Your task to perform on an android device: open sync settings in chrome Image 0: 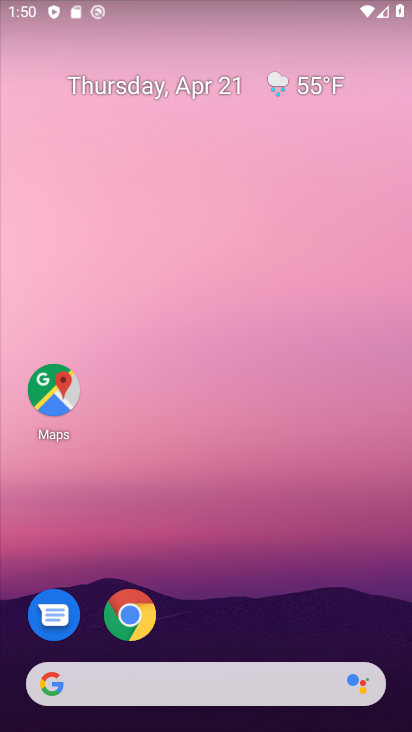
Step 0: click (135, 622)
Your task to perform on an android device: open sync settings in chrome Image 1: 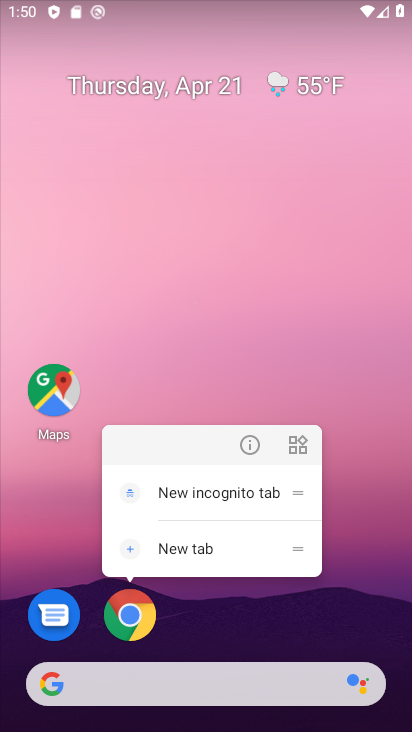
Step 1: click (135, 620)
Your task to perform on an android device: open sync settings in chrome Image 2: 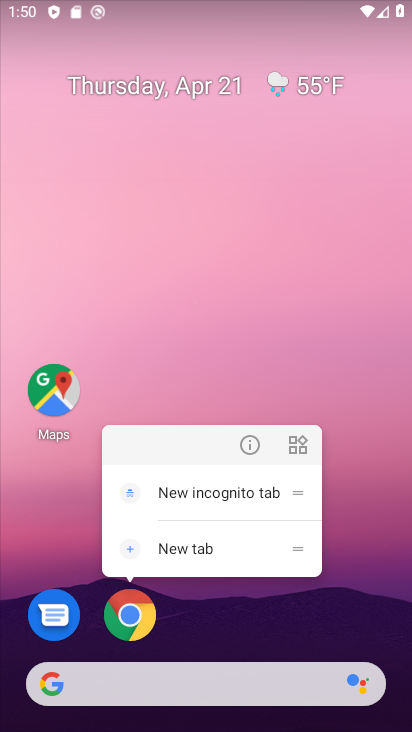
Step 2: click (134, 619)
Your task to perform on an android device: open sync settings in chrome Image 3: 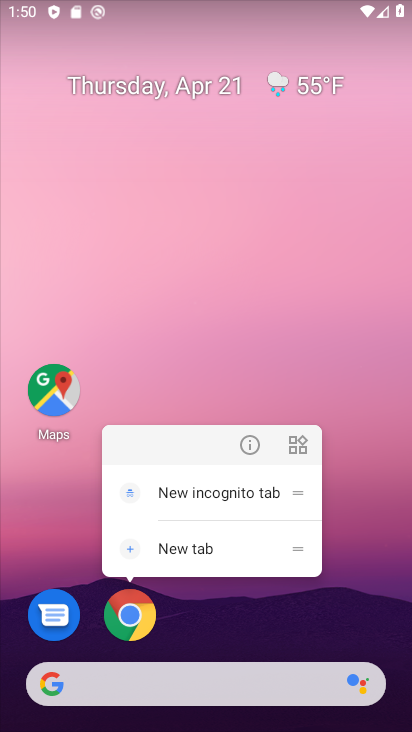
Step 3: click (134, 619)
Your task to perform on an android device: open sync settings in chrome Image 4: 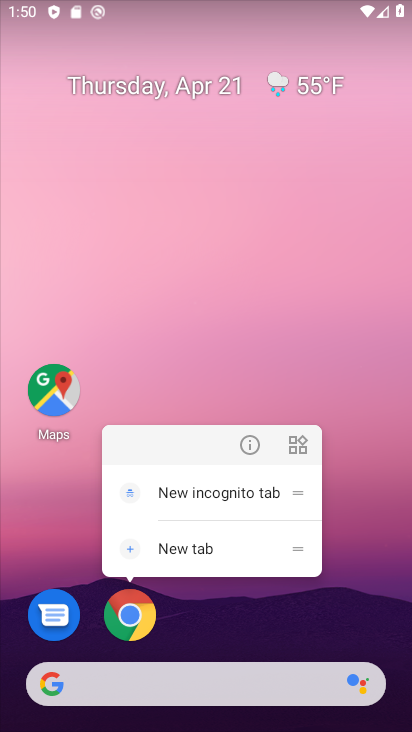
Step 4: click (127, 610)
Your task to perform on an android device: open sync settings in chrome Image 5: 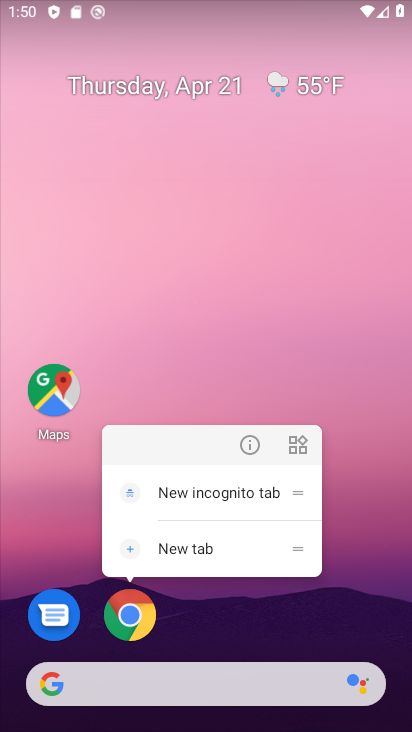
Step 5: click (119, 621)
Your task to perform on an android device: open sync settings in chrome Image 6: 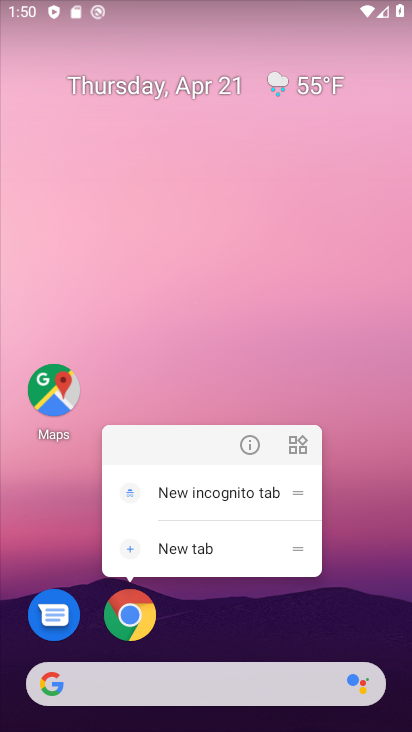
Step 6: click (129, 620)
Your task to perform on an android device: open sync settings in chrome Image 7: 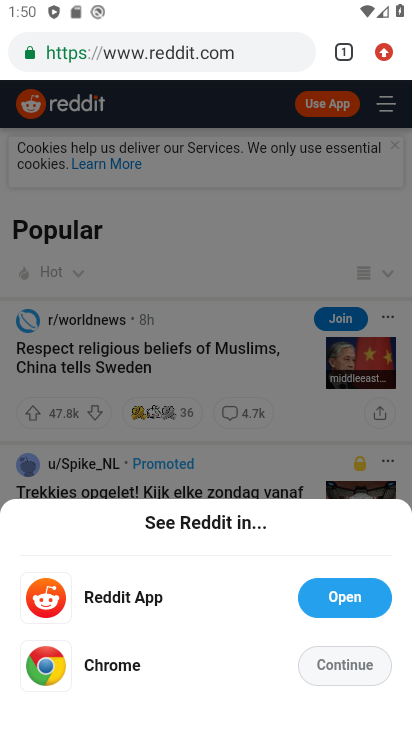
Step 7: click (338, 144)
Your task to perform on an android device: open sync settings in chrome Image 8: 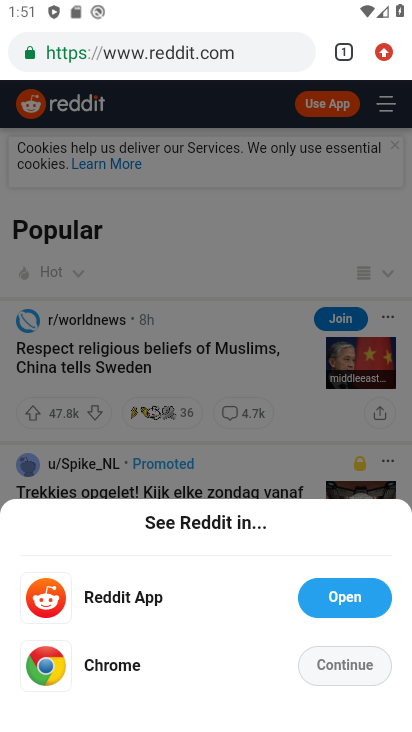
Step 8: click (345, 50)
Your task to perform on an android device: open sync settings in chrome Image 9: 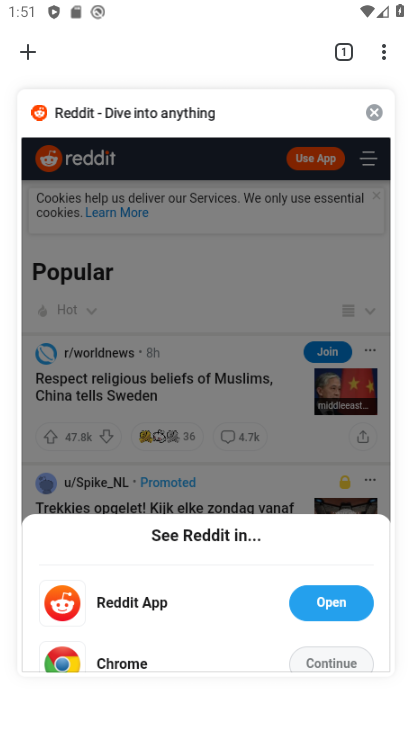
Step 9: click (372, 111)
Your task to perform on an android device: open sync settings in chrome Image 10: 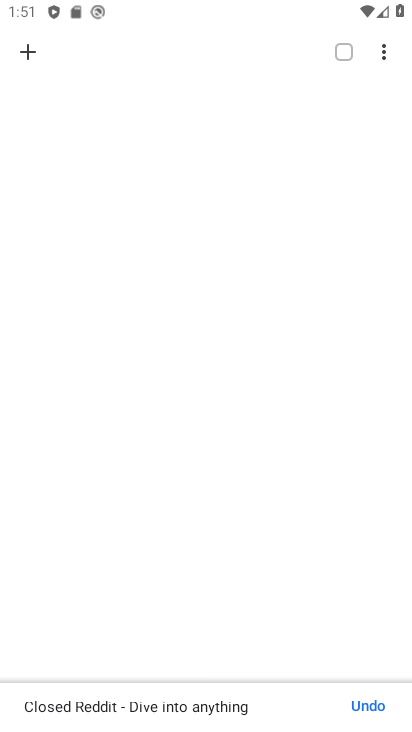
Step 10: click (385, 55)
Your task to perform on an android device: open sync settings in chrome Image 11: 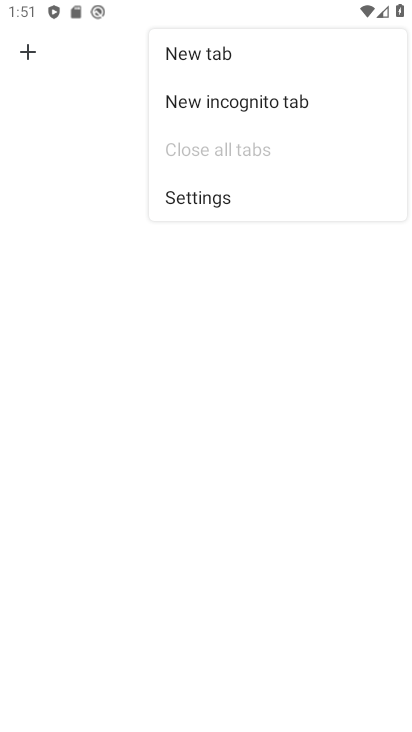
Step 11: click (222, 199)
Your task to perform on an android device: open sync settings in chrome Image 12: 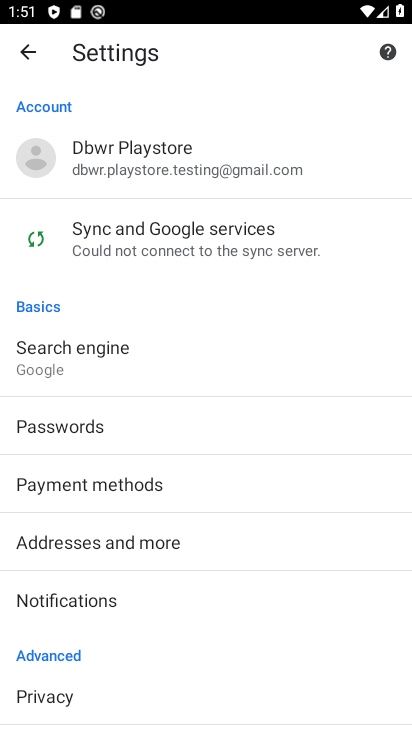
Step 12: click (191, 254)
Your task to perform on an android device: open sync settings in chrome Image 13: 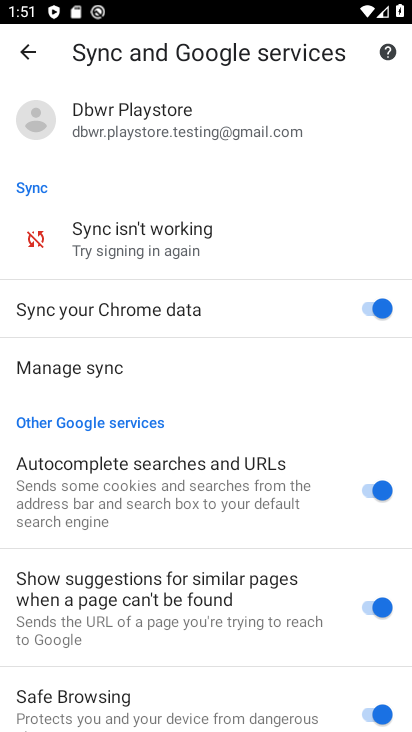
Step 13: click (136, 238)
Your task to perform on an android device: open sync settings in chrome Image 14: 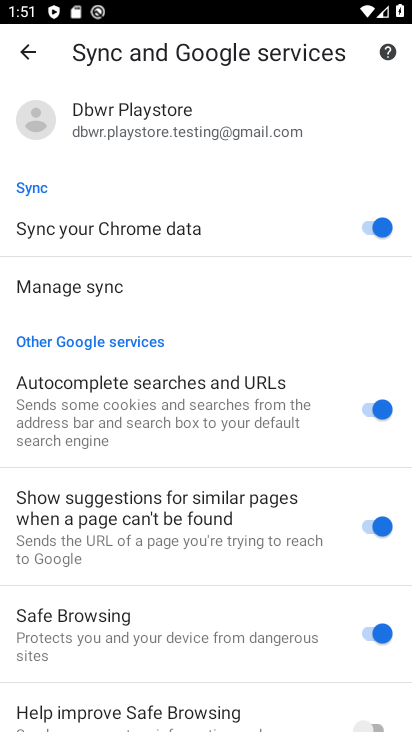
Step 14: click (255, 118)
Your task to perform on an android device: open sync settings in chrome Image 15: 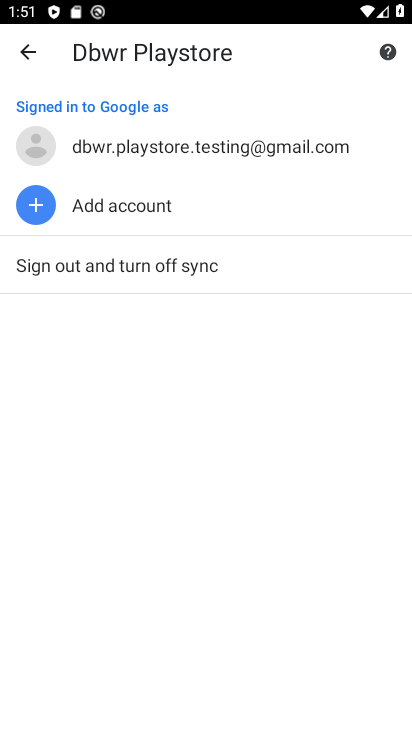
Step 15: task complete